Your task to perform on an android device: stop showing notifications on the lock screen Image 0: 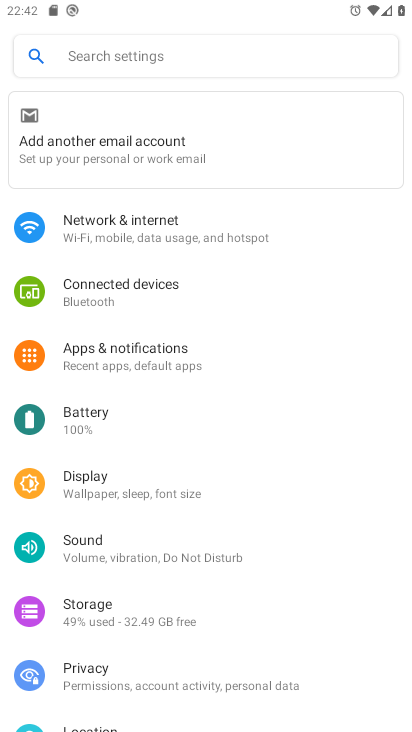
Step 0: click (363, 554)
Your task to perform on an android device: stop showing notifications on the lock screen Image 1: 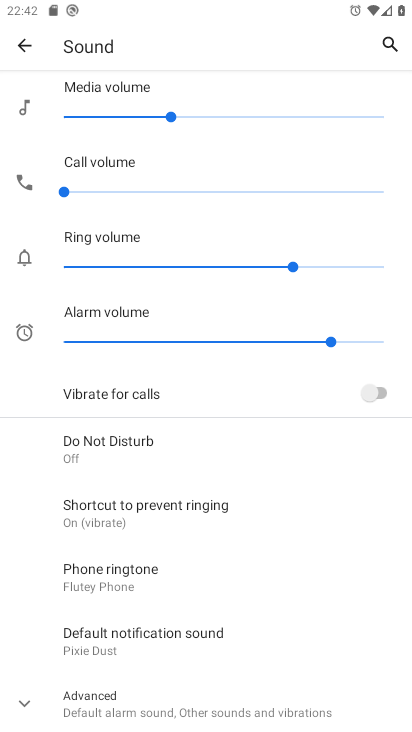
Step 1: click (28, 47)
Your task to perform on an android device: stop showing notifications on the lock screen Image 2: 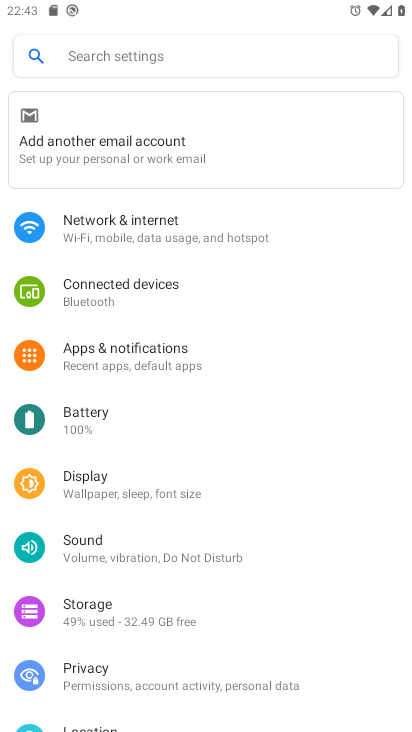
Step 2: click (151, 352)
Your task to perform on an android device: stop showing notifications on the lock screen Image 3: 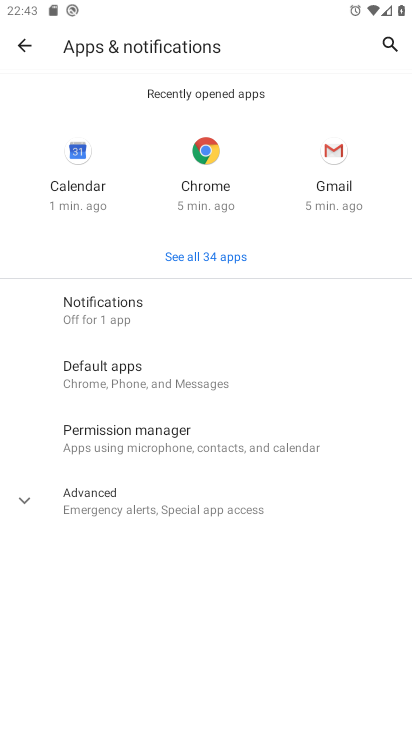
Step 3: click (132, 311)
Your task to perform on an android device: stop showing notifications on the lock screen Image 4: 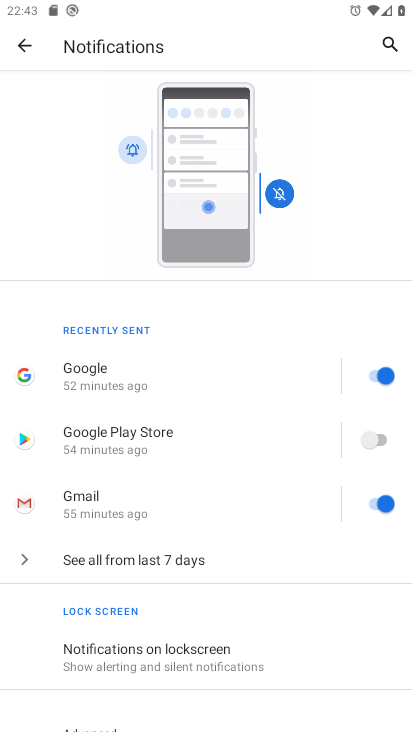
Step 4: click (142, 666)
Your task to perform on an android device: stop showing notifications on the lock screen Image 5: 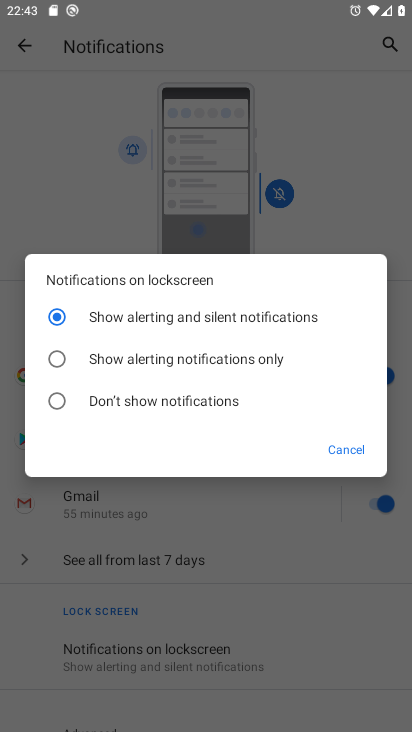
Step 5: click (61, 402)
Your task to perform on an android device: stop showing notifications on the lock screen Image 6: 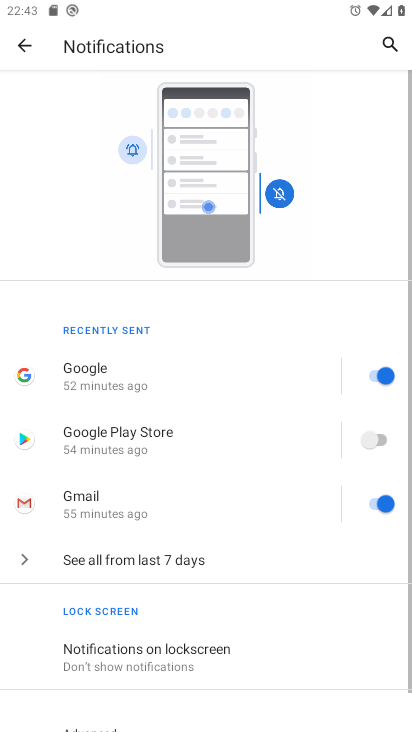
Step 6: task complete